Your task to perform on an android device: choose inbox layout in the gmail app Image 0: 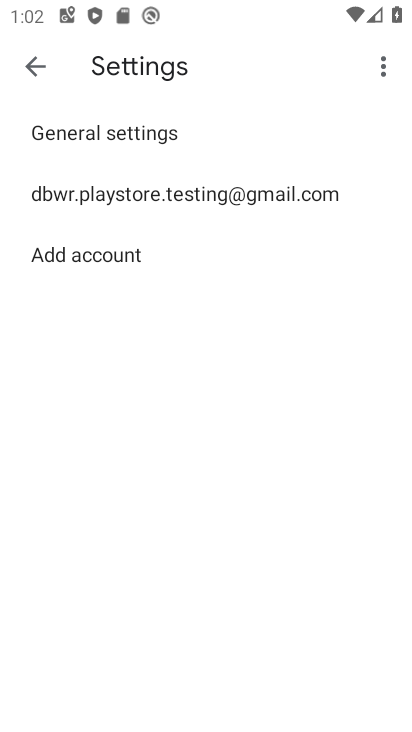
Step 0: press home button
Your task to perform on an android device: choose inbox layout in the gmail app Image 1: 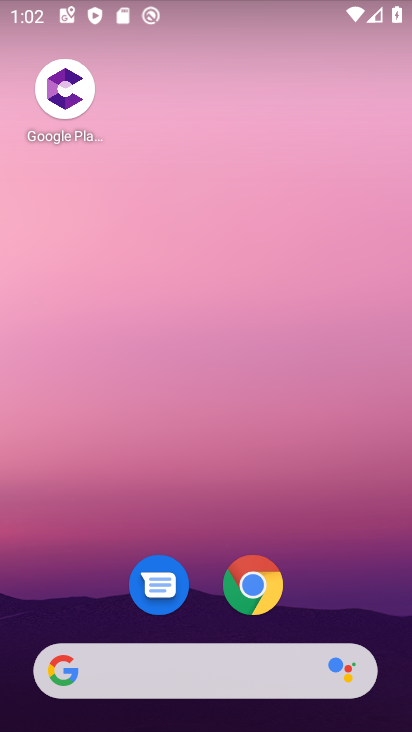
Step 1: drag from (217, 496) to (257, 40)
Your task to perform on an android device: choose inbox layout in the gmail app Image 2: 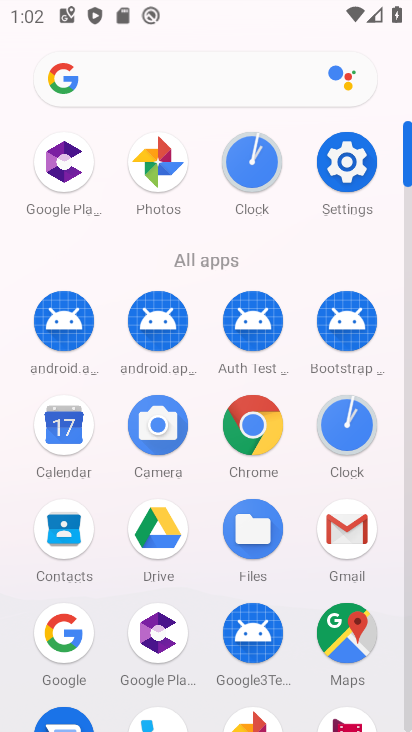
Step 2: click (354, 515)
Your task to perform on an android device: choose inbox layout in the gmail app Image 3: 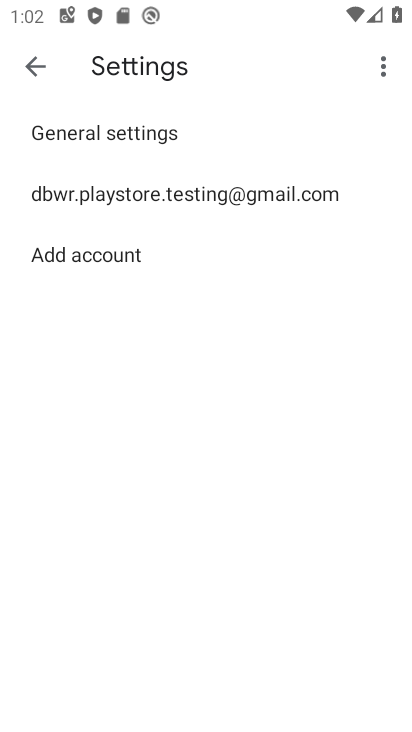
Step 3: click (268, 184)
Your task to perform on an android device: choose inbox layout in the gmail app Image 4: 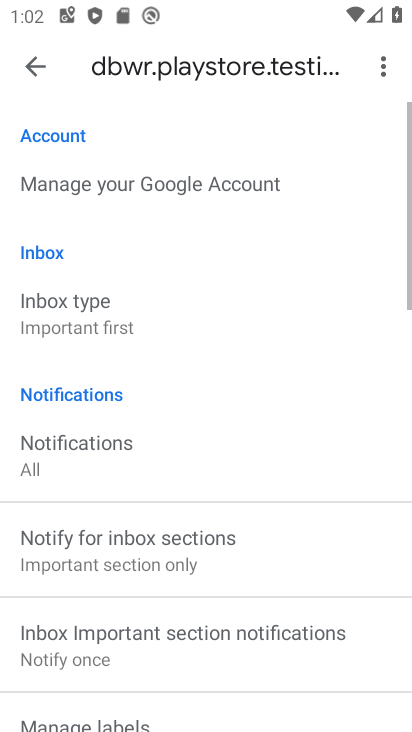
Step 4: click (104, 314)
Your task to perform on an android device: choose inbox layout in the gmail app Image 5: 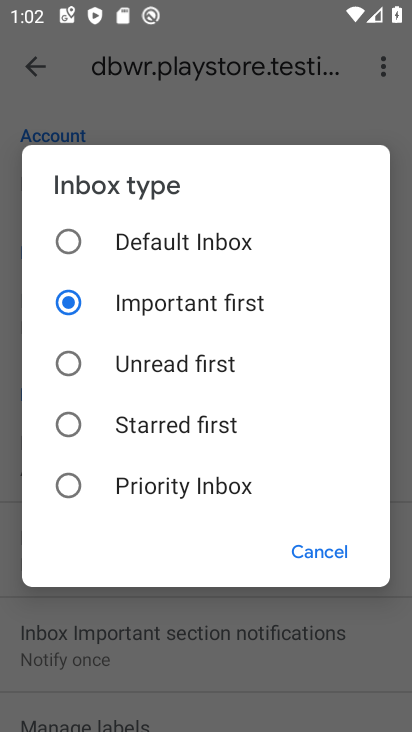
Step 5: click (65, 231)
Your task to perform on an android device: choose inbox layout in the gmail app Image 6: 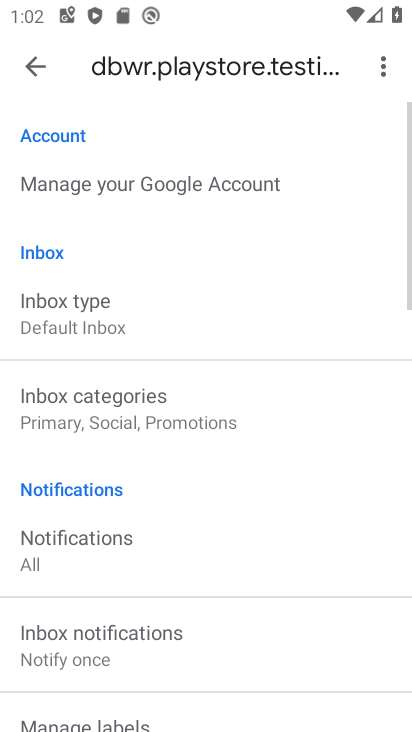
Step 6: task complete